Your task to perform on an android device: delete a single message in the gmail app Image 0: 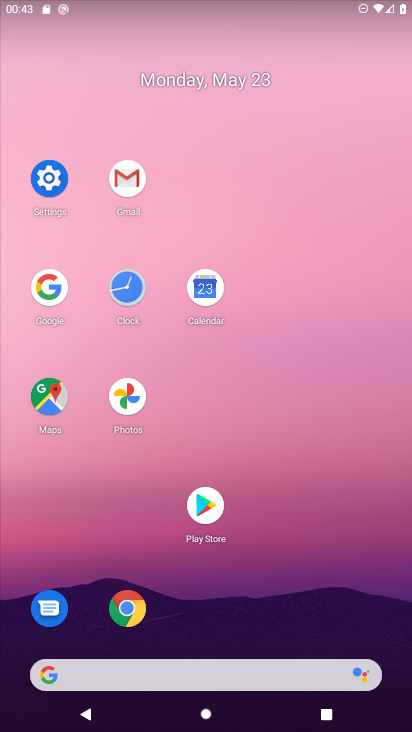
Step 0: click (134, 176)
Your task to perform on an android device: delete a single message in the gmail app Image 1: 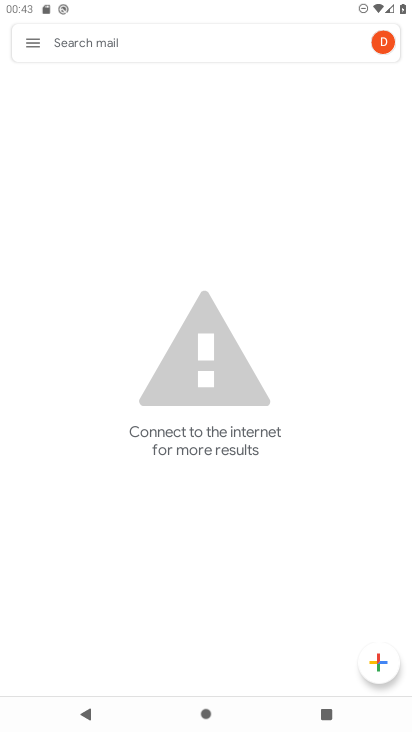
Step 1: click (30, 31)
Your task to perform on an android device: delete a single message in the gmail app Image 2: 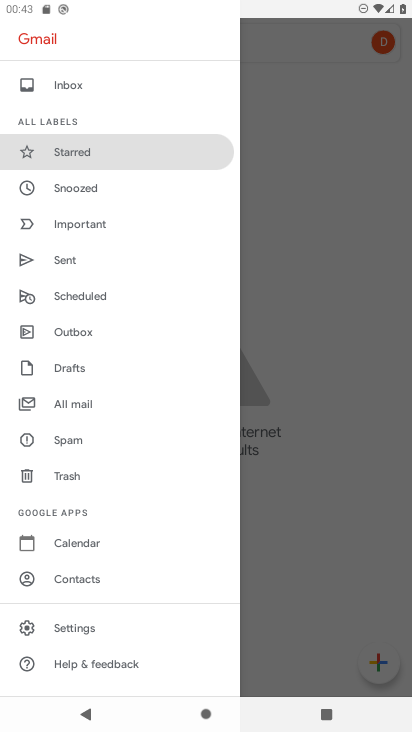
Step 2: drag from (101, 631) to (47, 303)
Your task to perform on an android device: delete a single message in the gmail app Image 3: 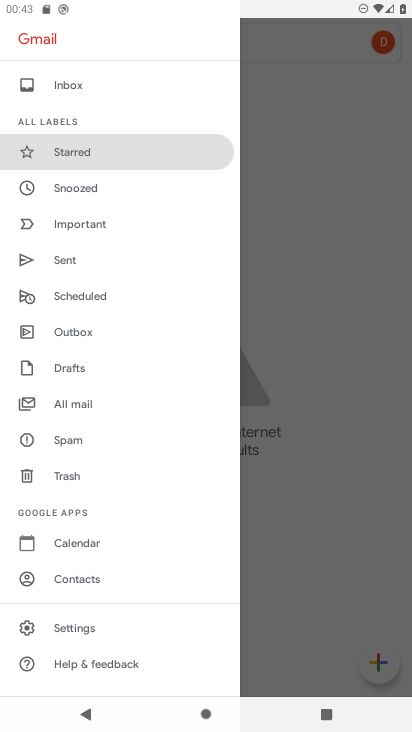
Step 3: click (74, 411)
Your task to perform on an android device: delete a single message in the gmail app Image 4: 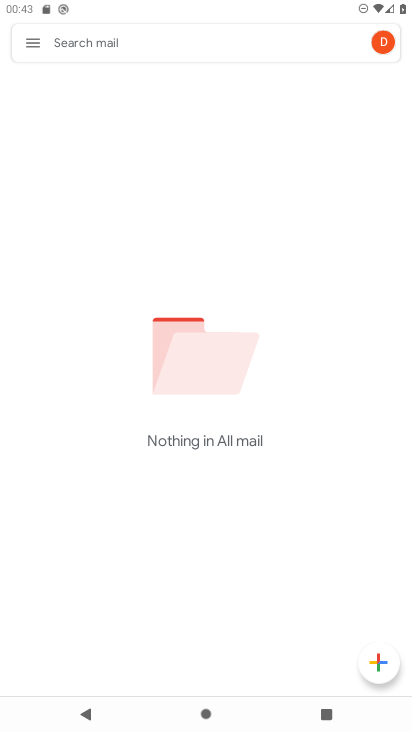
Step 4: task complete